Your task to perform on an android device: Open Yahoo.com Image 0: 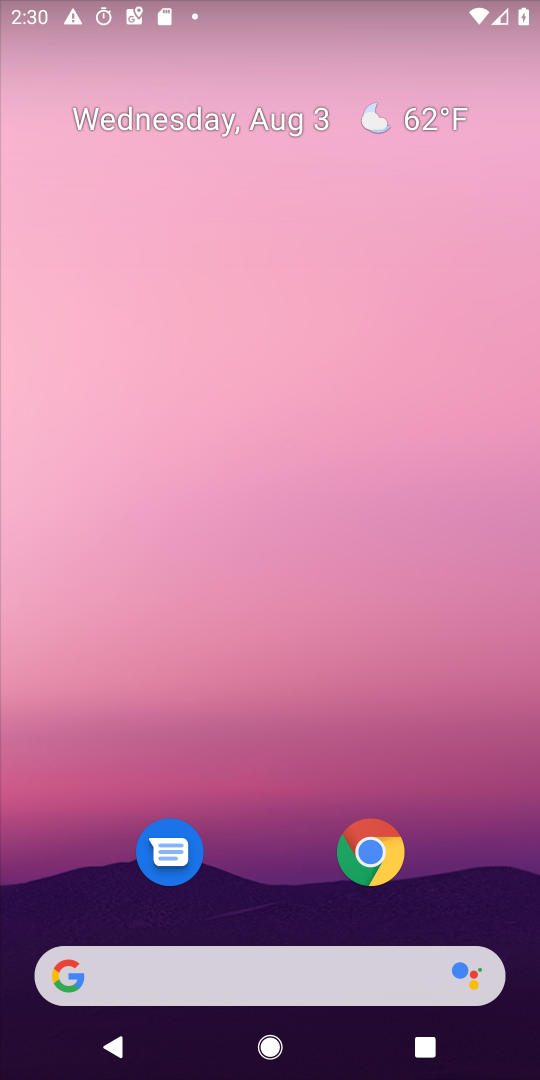
Step 0: drag from (486, 885) to (217, 62)
Your task to perform on an android device: Open Yahoo.com Image 1: 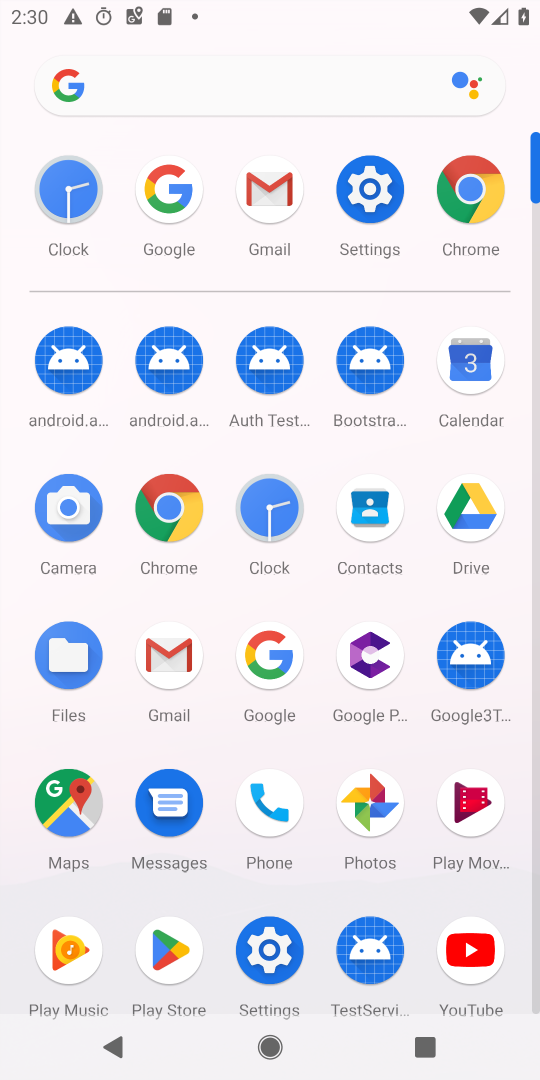
Step 1: click (261, 659)
Your task to perform on an android device: Open Yahoo.com Image 2: 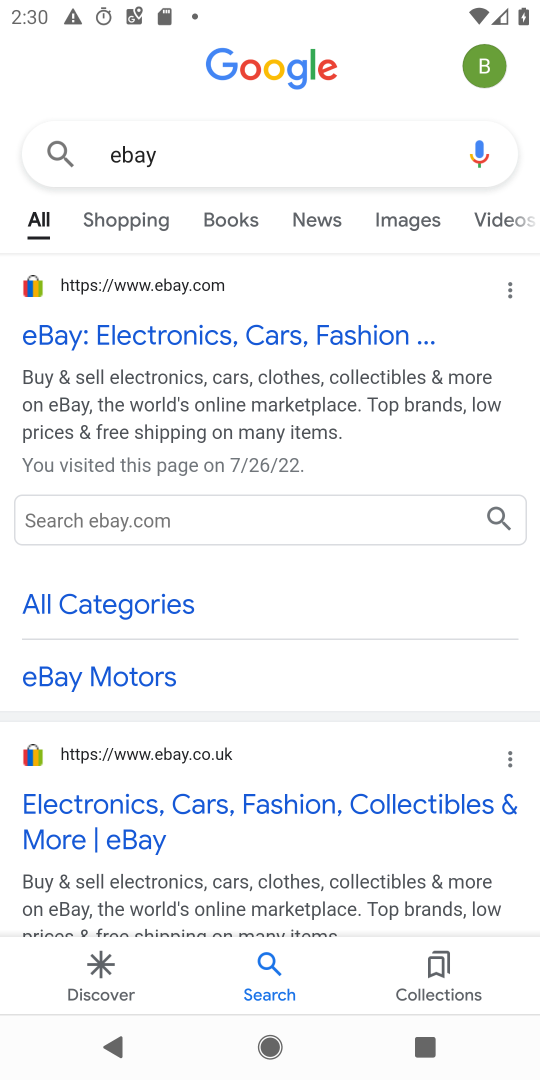
Step 2: press back button
Your task to perform on an android device: Open Yahoo.com Image 3: 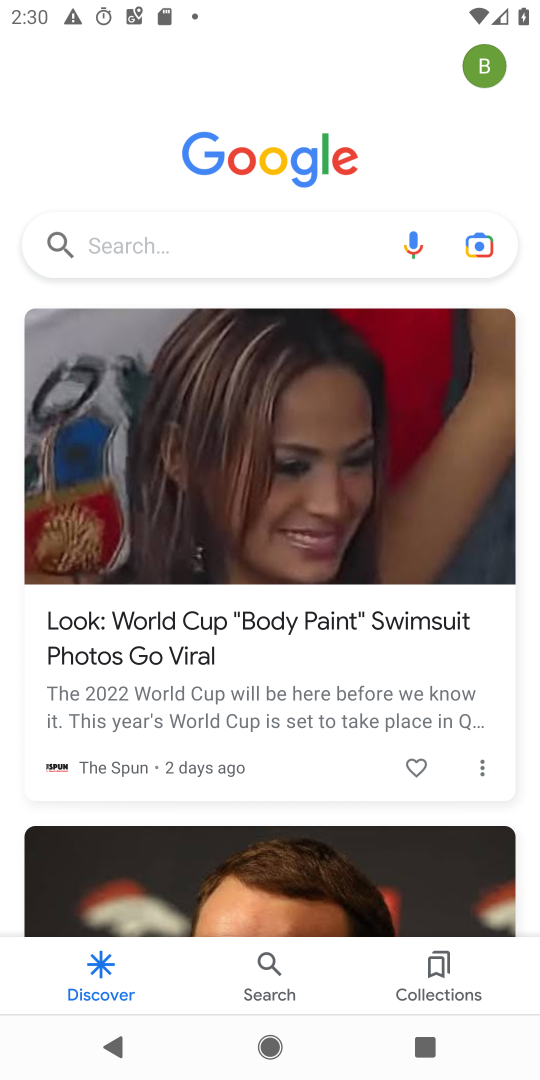
Step 3: click (131, 242)
Your task to perform on an android device: Open Yahoo.com Image 4: 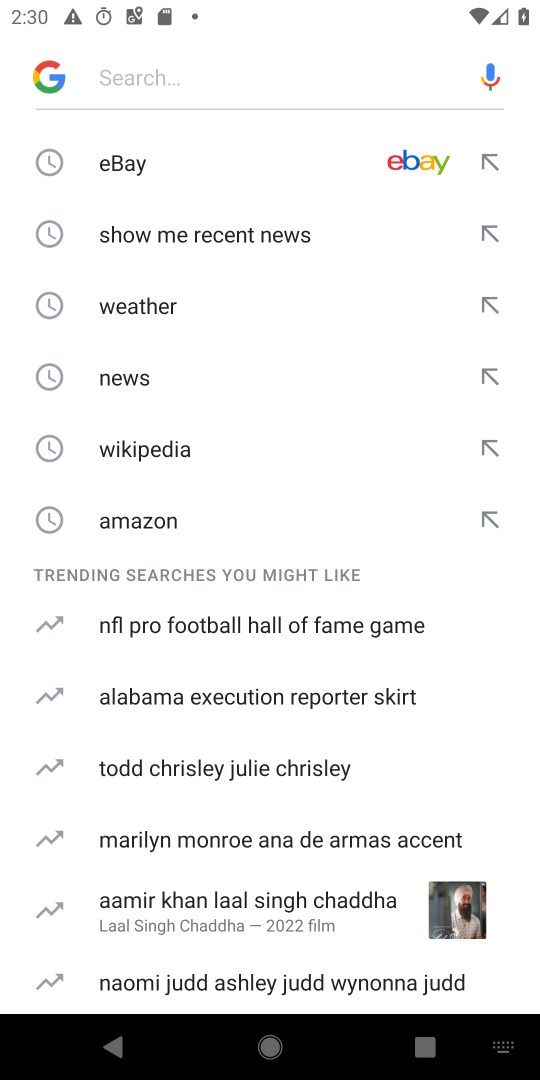
Step 4: type "Yahoo.com"
Your task to perform on an android device: Open Yahoo.com Image 5: 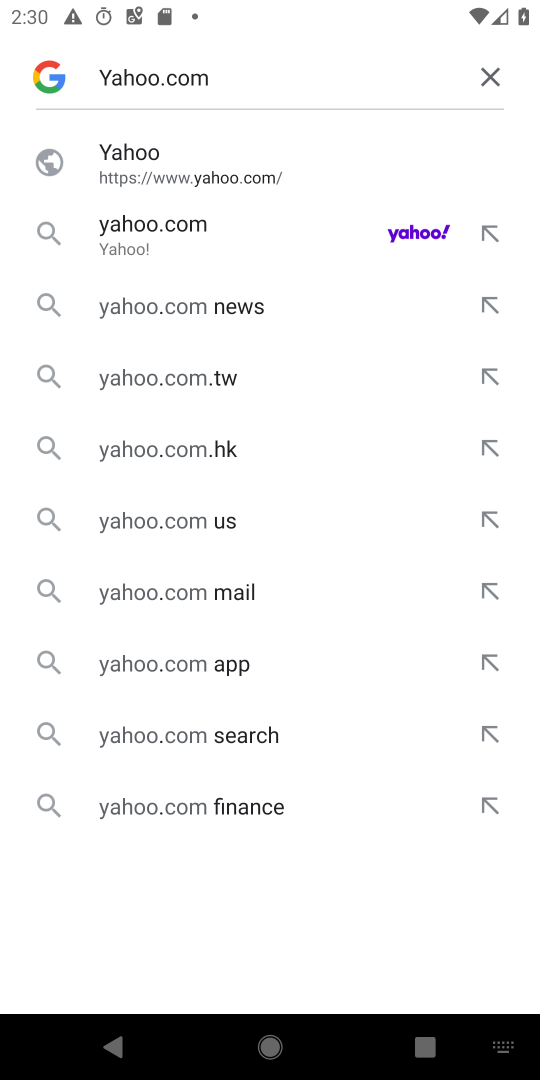
Step 5: click (157, 221)
Your task to perform on an android device: Open Yahoo.com Image 6: 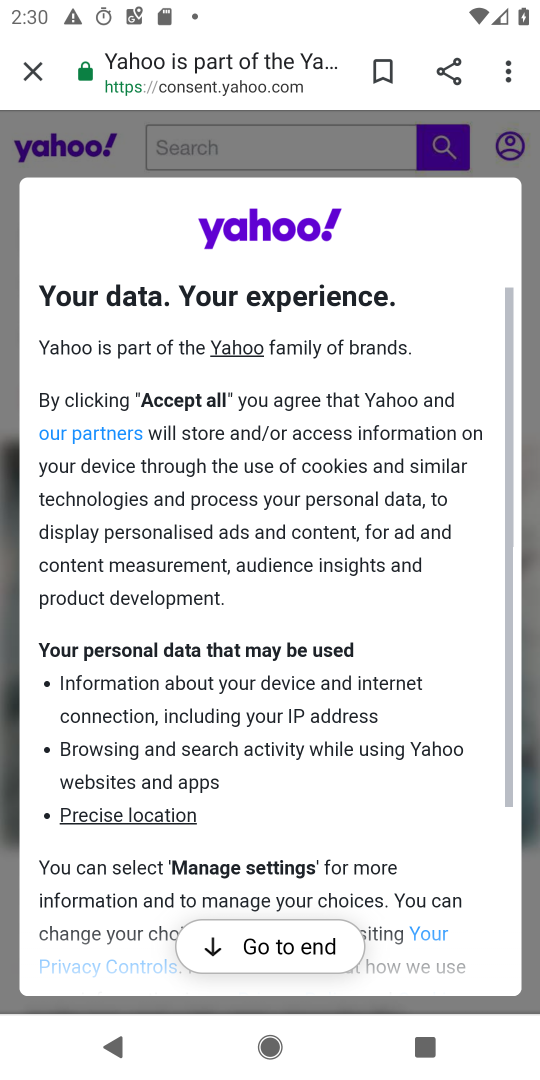
Step 6: task complete